Your task to perform on an android device: Go to ESPN.com Image 0: 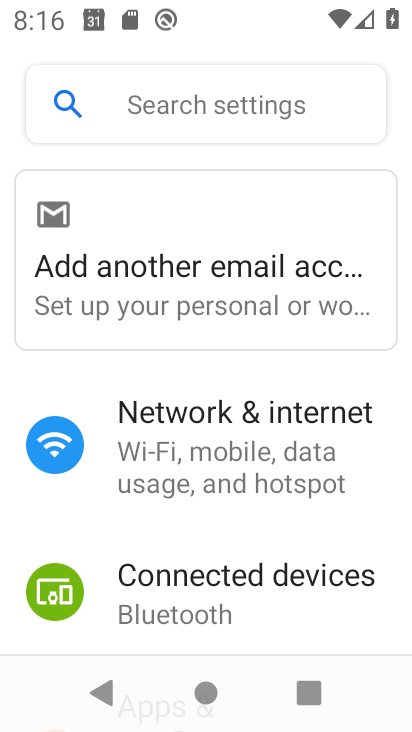
Step 0: press home button
Your task to perform on an android device: Go to ESPN.com Image 1: 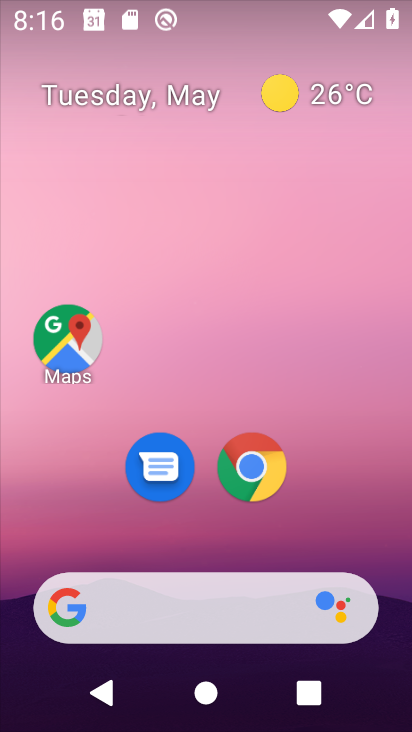
Step 1: click (247, 464)
Your task to perform on an android device: Go to ESPN.com Image 2: 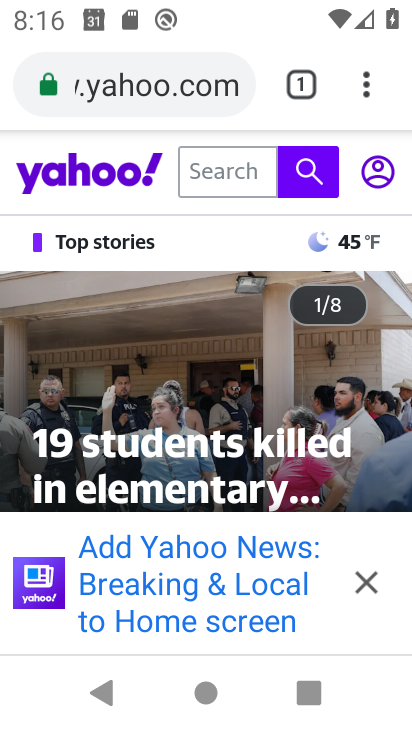
Step 2: click (236, 83)
Your task to perform on an android device: Go to ESPN.com Image 3: 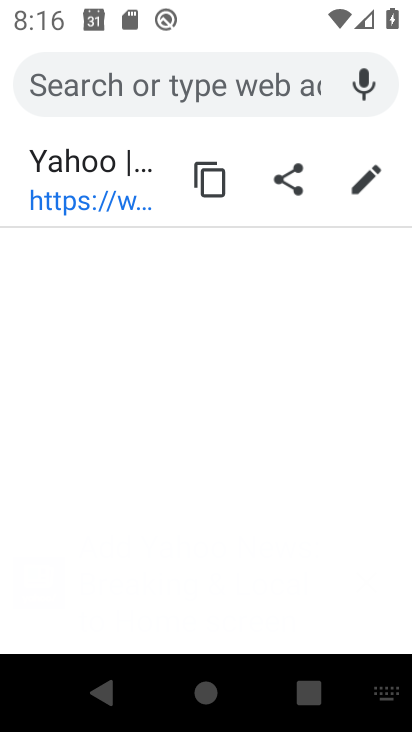
Step 3: type "ESPN.com"
Your task to perform on an android device: Go to ESPN.com Image 4: 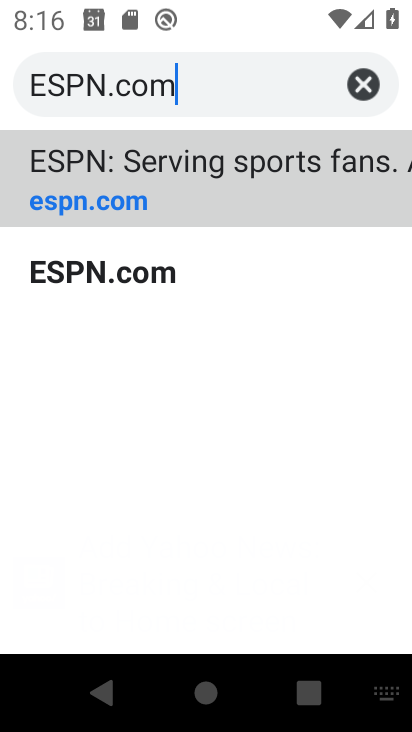
Step 4: click (112, 262)
Your task to perform on an android device: Go to ESPN.com Image 5: 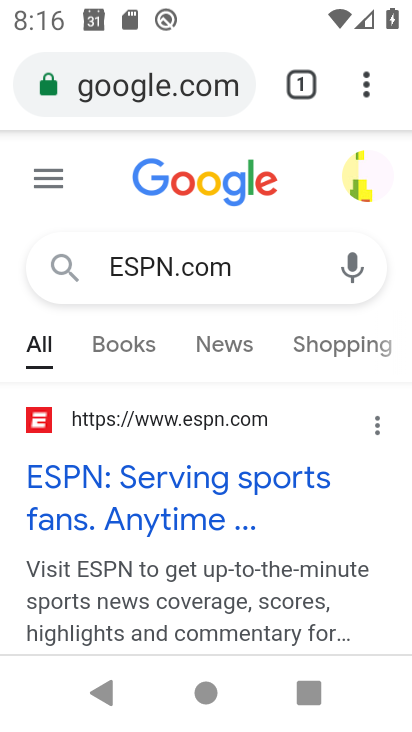
Step 5: task complete